Your task to perform on an android device: Open calendar and show me the first week of next month Image 0: 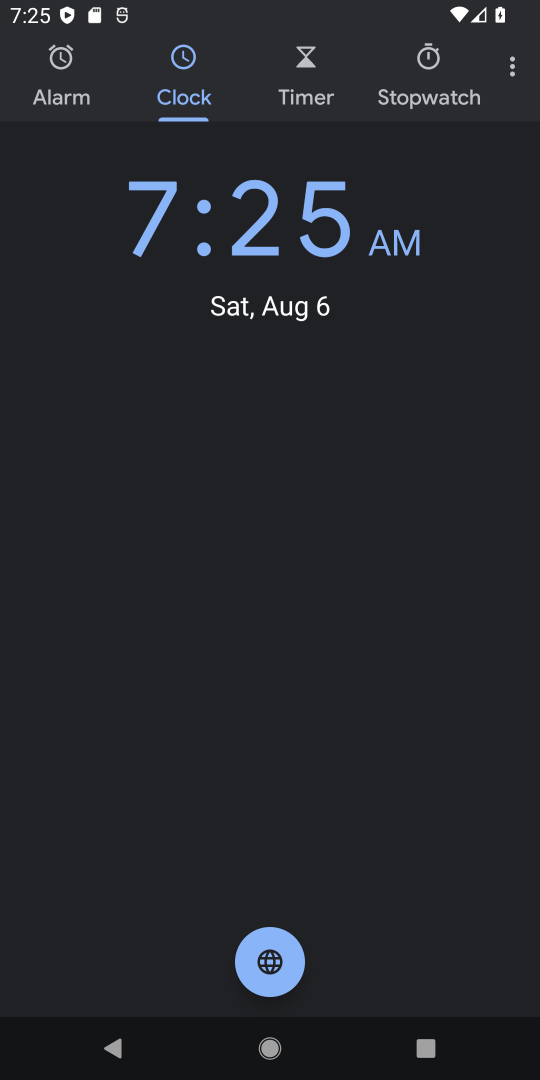
Step 0: press back button
Your task to perform on an android device: Open calendar and show me the first week of next month Image 1: 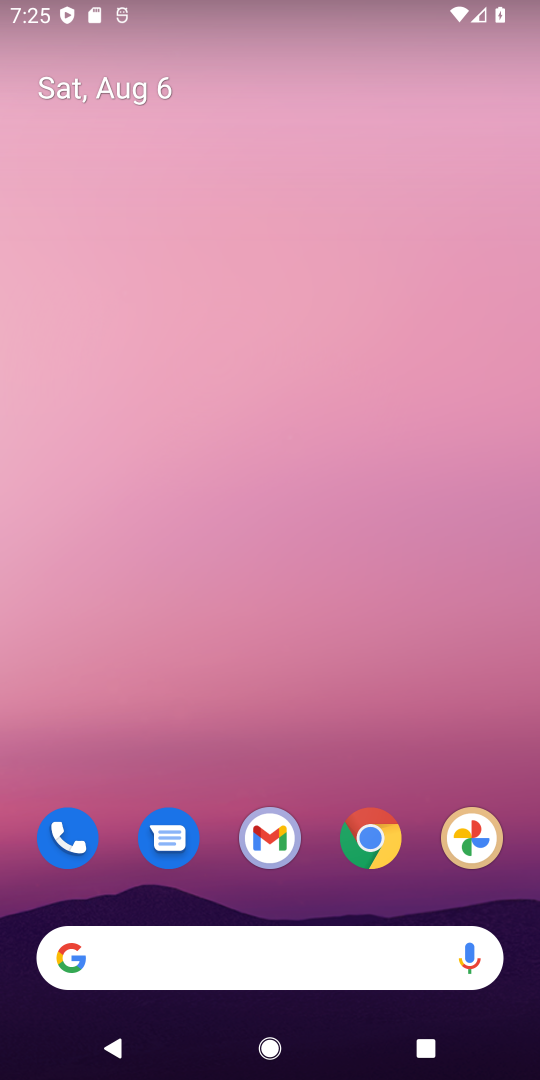
Step 1: click (355, 965)
Your task to perform on an android device: Open calendar and show me the first week of next month Image 2: 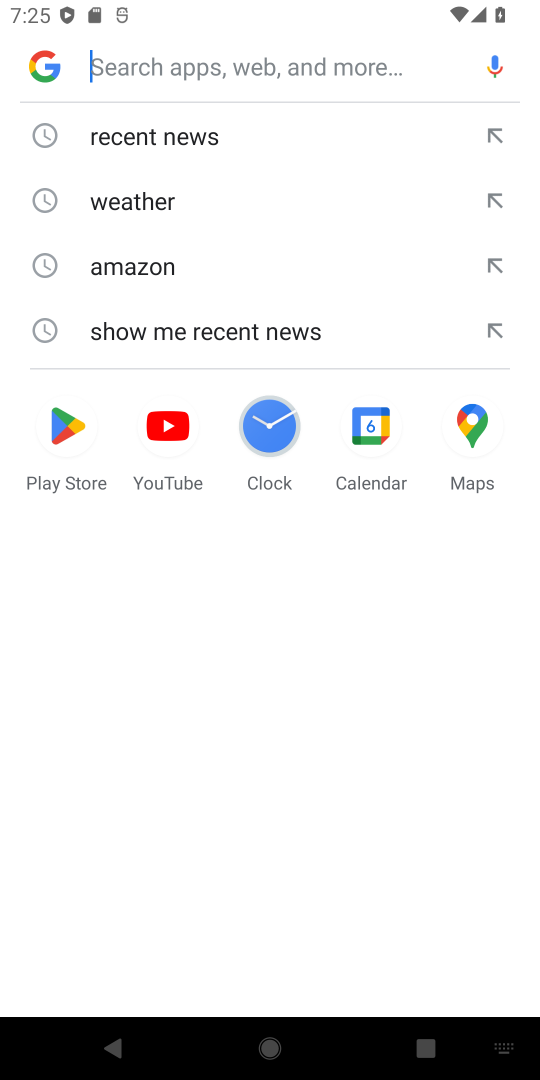
Step 2: click (198, 140)
Your task to perform on an android device: Open calendar and show me the first week of next month Image 3: 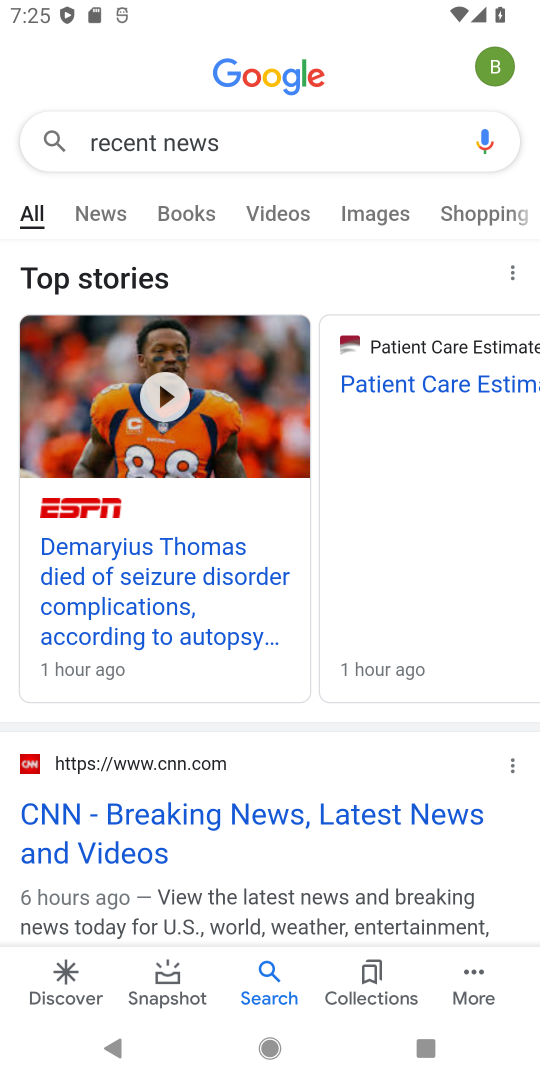
Step 3: task complete